Your task to perform on an android device: Go to Android settings Image 0: 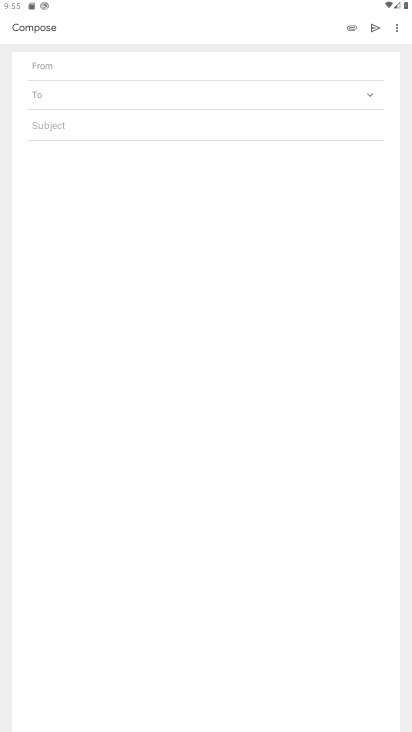
Step 0: drag from (203, 655) to (404, 308)
Your task to perform on an android device: Go to Android settings Image 1: 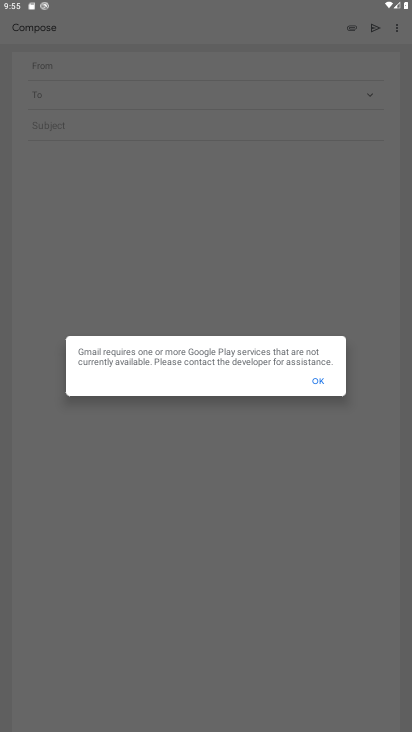
Step 1: press home button
Your task to perform on an android device: Go to Android settings Image 2: 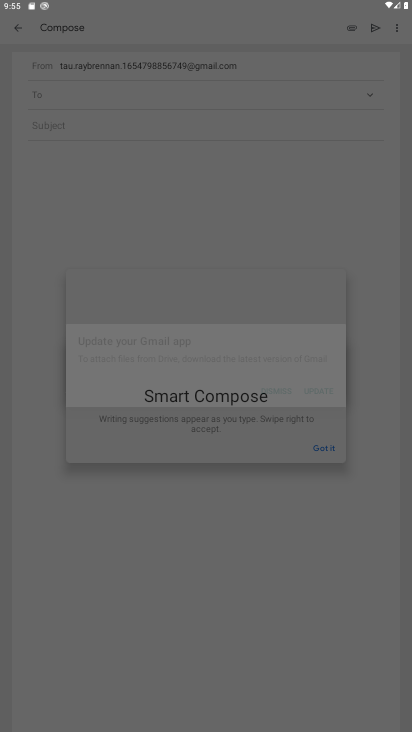
Step 2: click (405, 451)
Your task to perform on an android device: Go to Android settings Image 3: 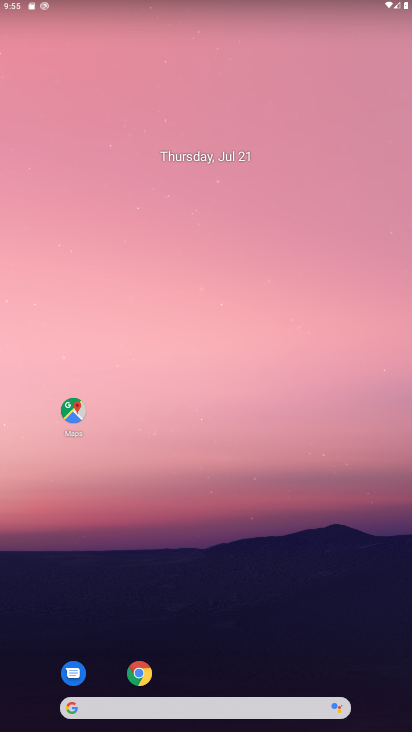
Step 3: drag from (156, 692) to (176, 130)
Your task to perform on an android device: Go to Android settings Image 4: 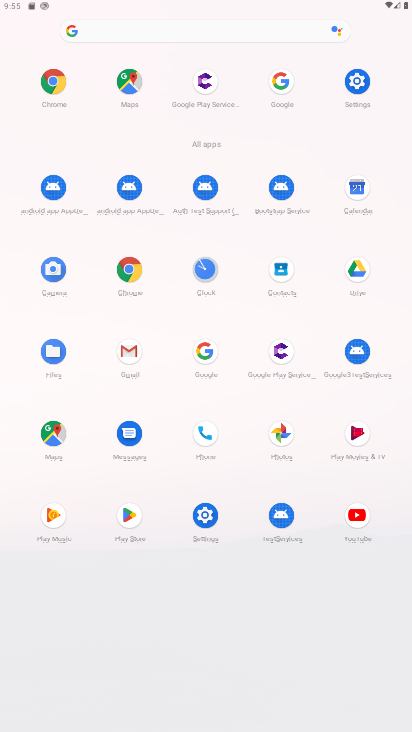
Step 4: click (347, 80)
Your task to perform on an android device: Go to Android settings Image 5: 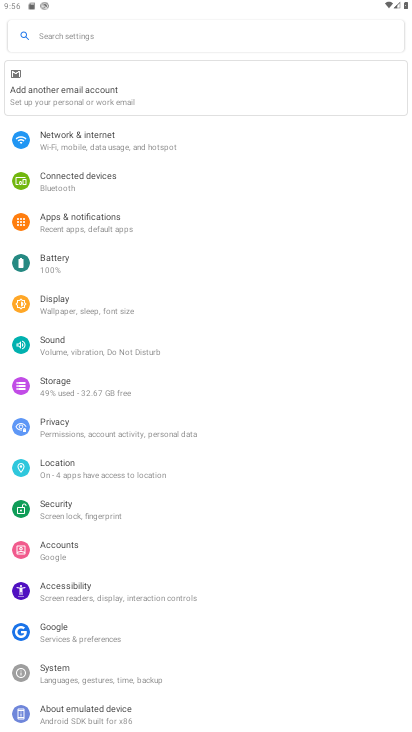
Step 5: task complete